Your task to perform on an android device: uninstall "DoorDash - Food Delivery" Image 0: 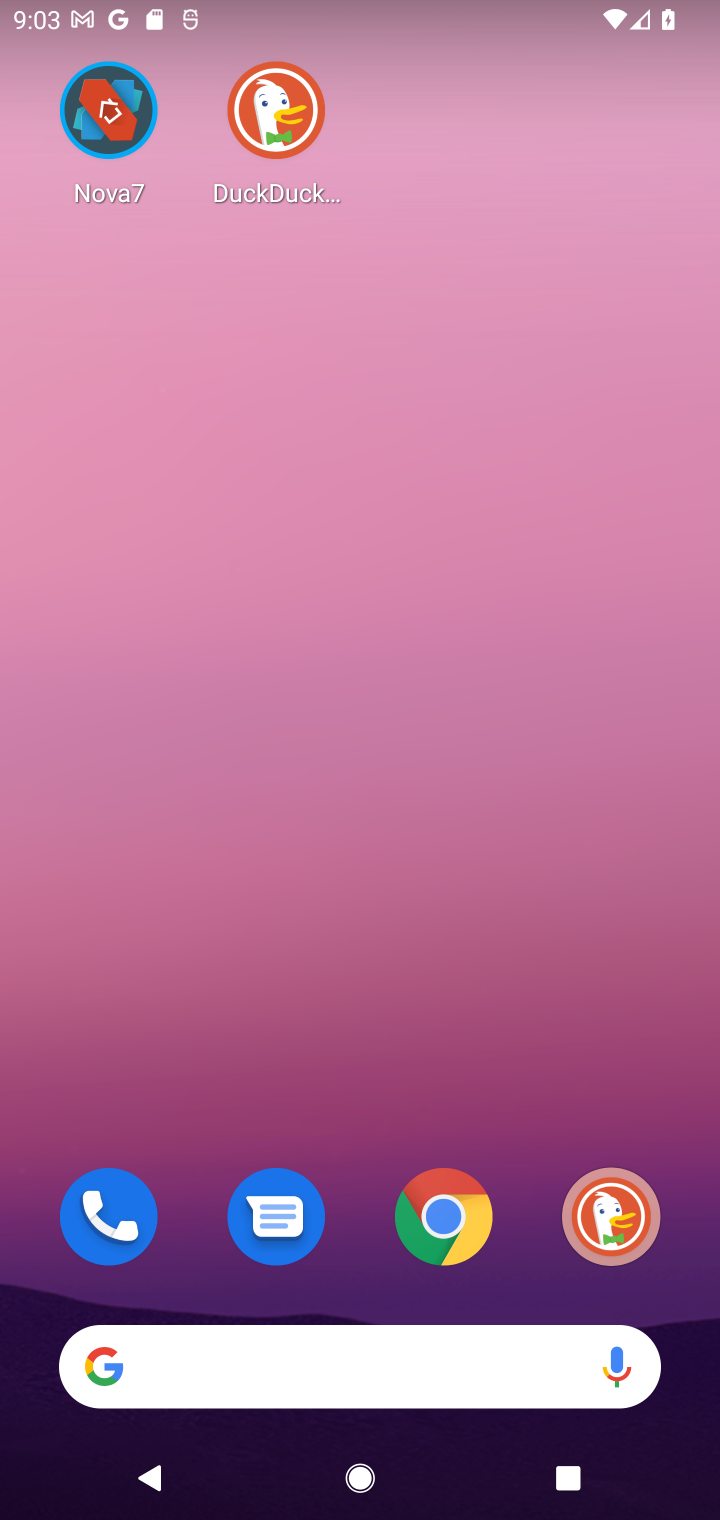
Step 0: press home button
Your task to perform on an android device: uninstall "DoorDash - Food Delivery" Image 1: 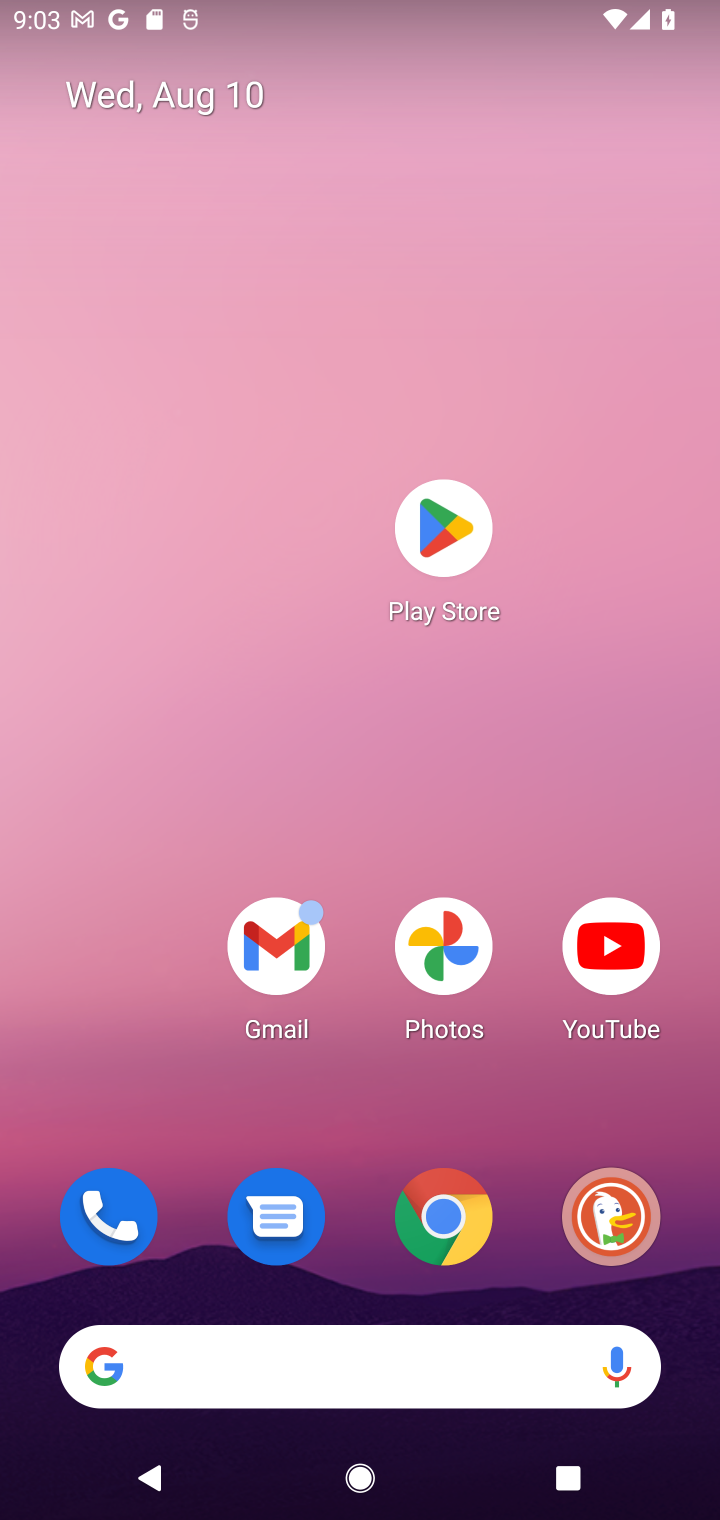
Step 1: click (444, 532)
Your task to perform on an android device: uninstall "DoorDash - Food Delivery" Image 2: 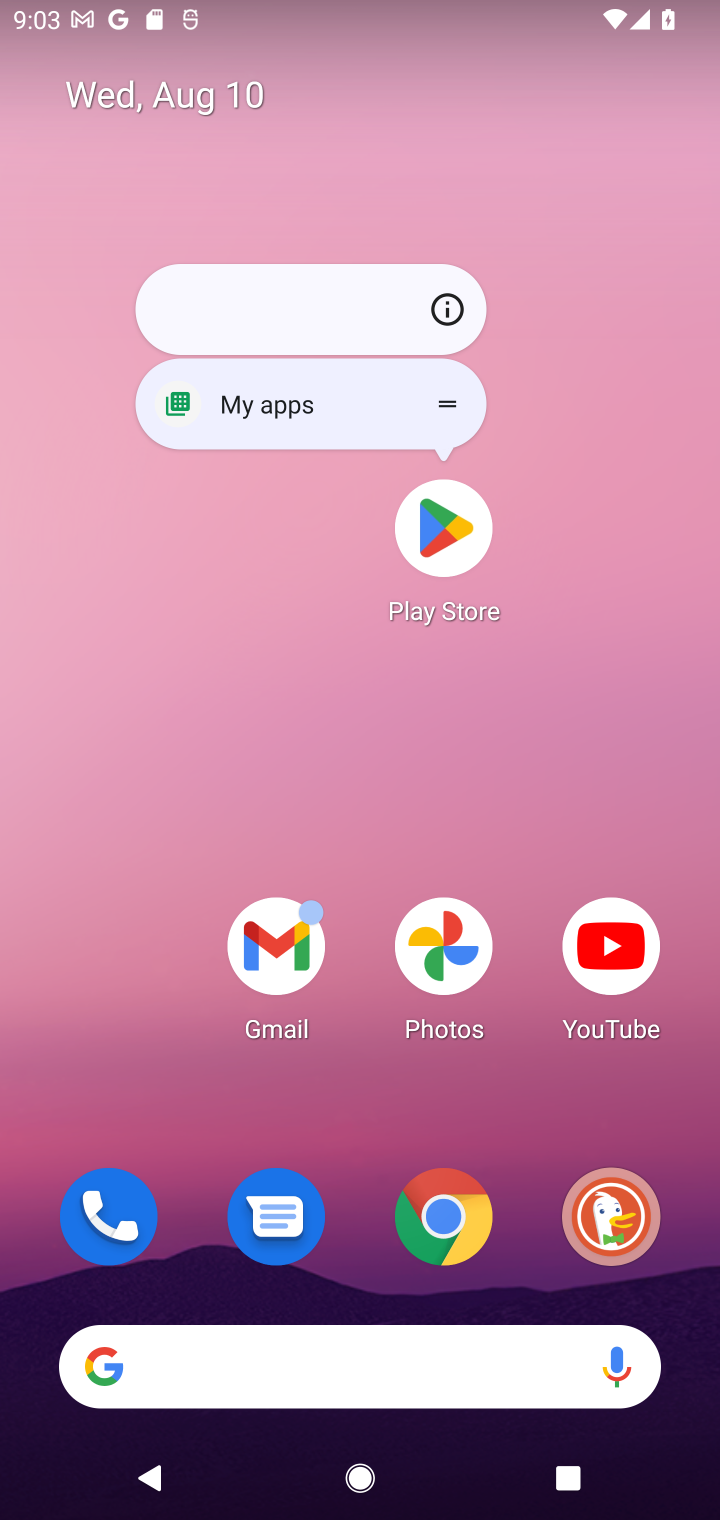
Step 2: click (444, 532)
Your task to perform on an android device: uninstall "DoorDash - Food Delivery" Image 3: 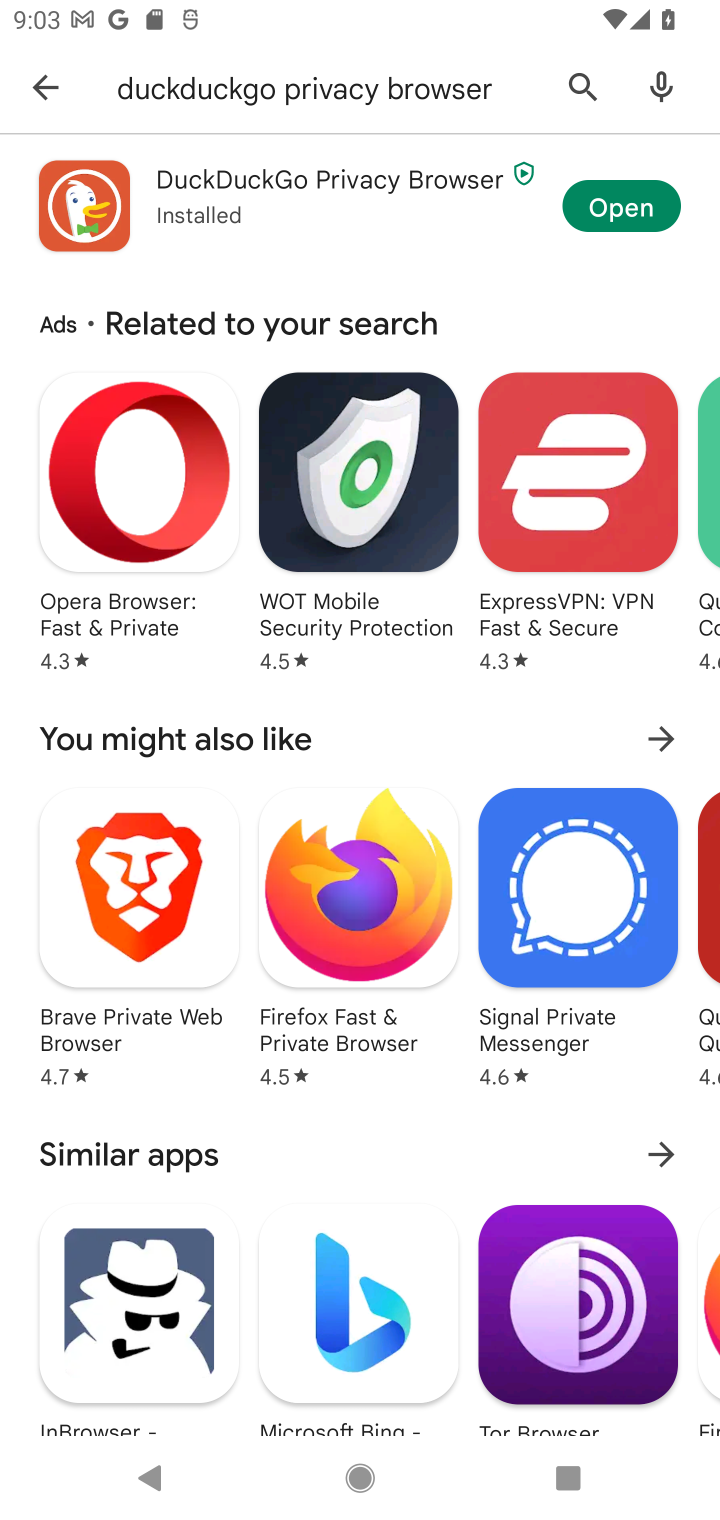
Step 3: click (562, 83)
Your task to perform on an android device: uninstall "DoorDash - Food Delivery" Image 4: 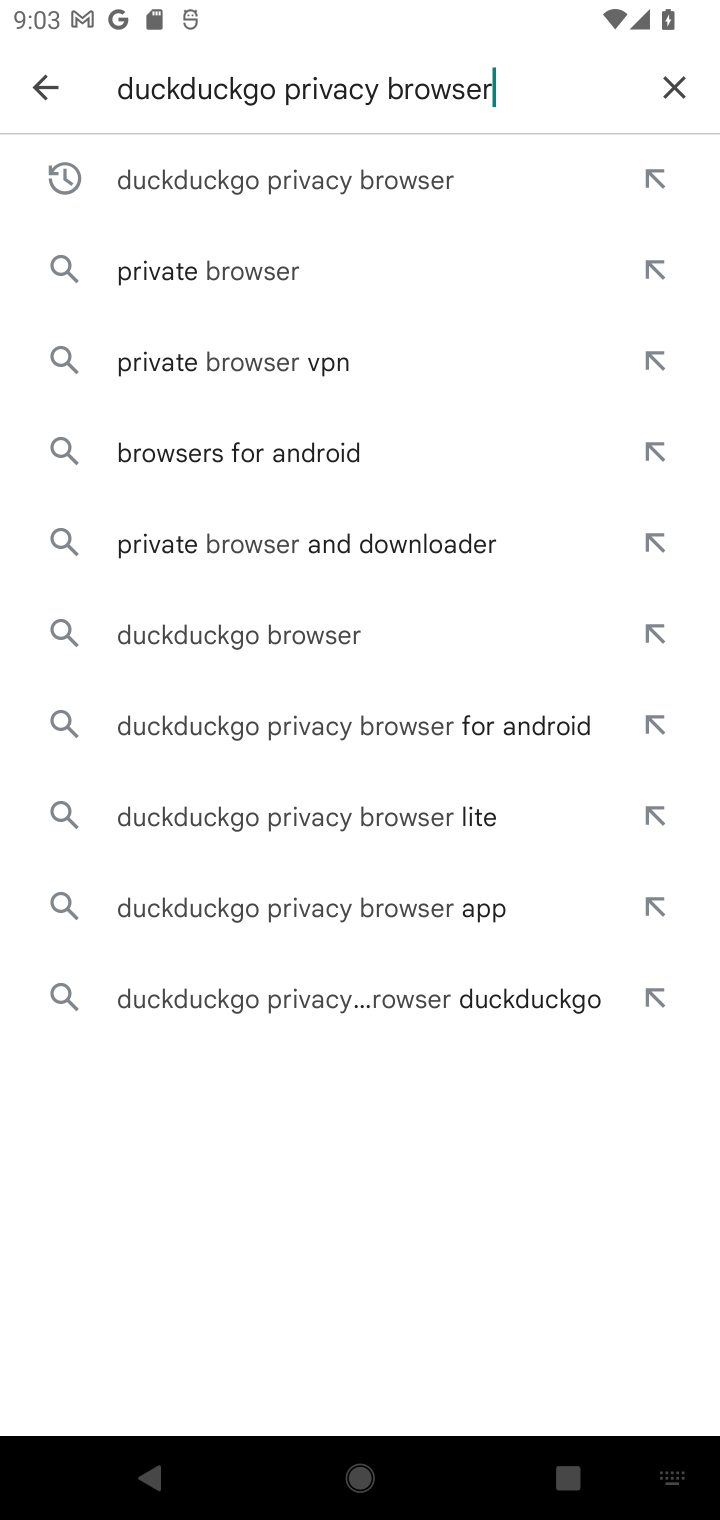
Step 4: click (681, 77)
Your task to perform on an android device: uninstall "DoorDash - Food Delivery" Image 5: 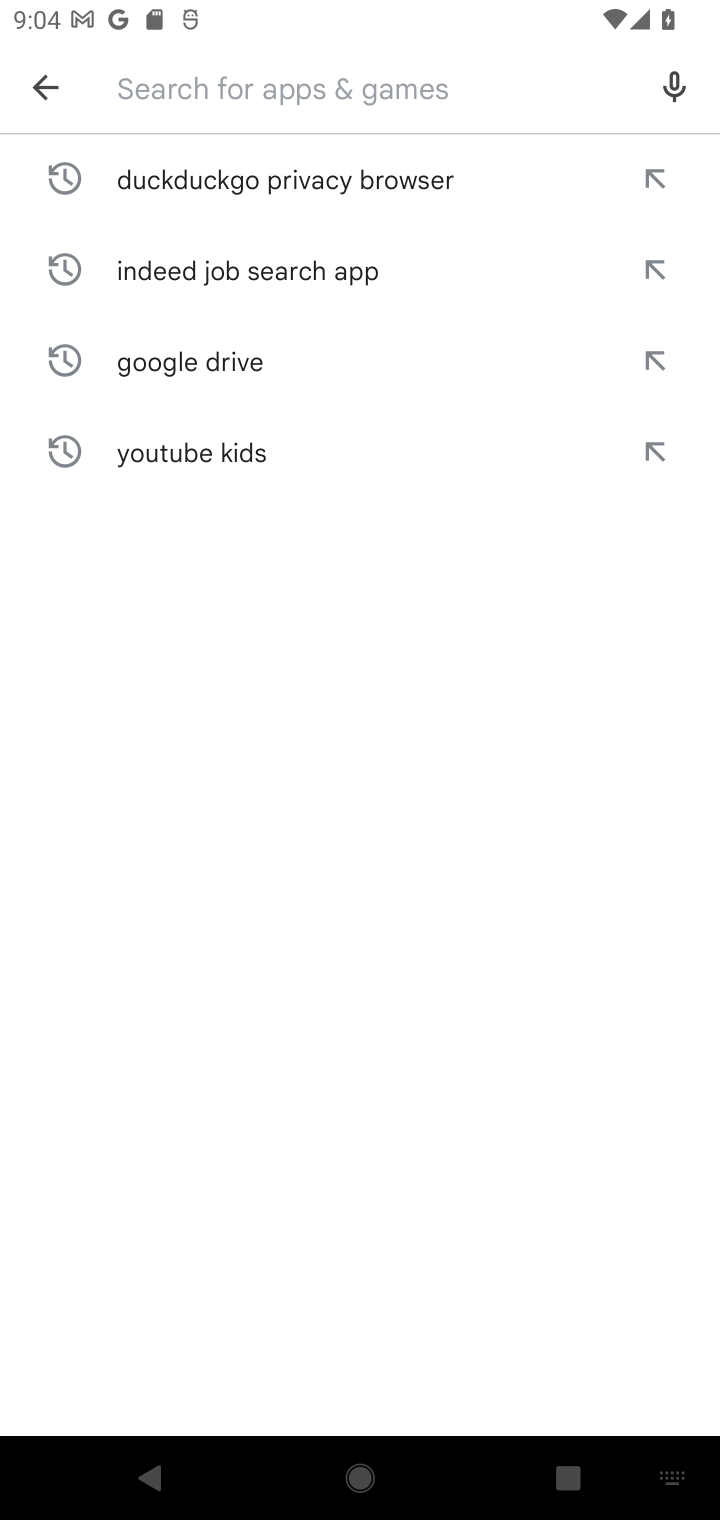
Step 5: type "DoorDash - Food Delivery"
Your task to perform on an android device: uninstall "DoorDash - Food Delivery" Image 6: 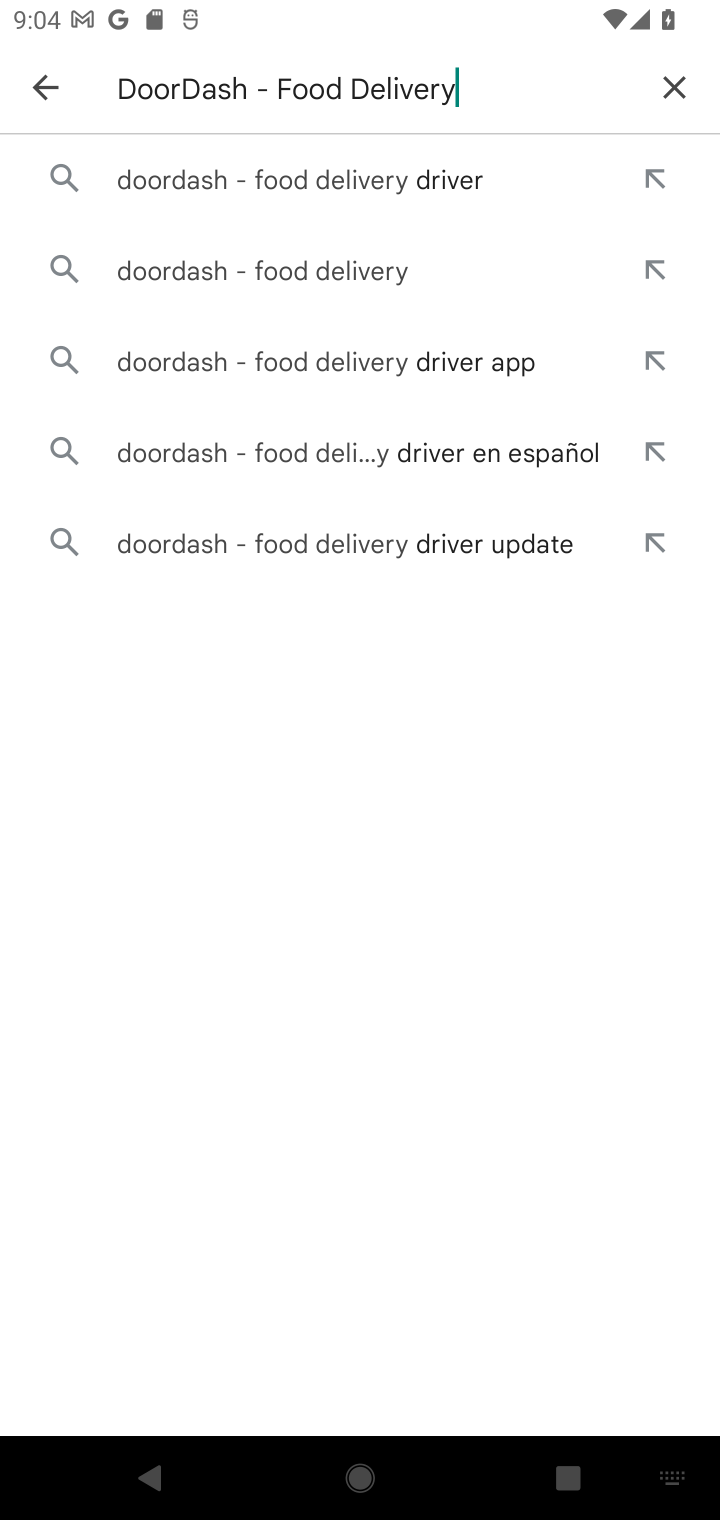
Step 6: click (265, 191)
Your task to perform on an android device: uninstall "DoorDash - Food Delivery" Image 7: 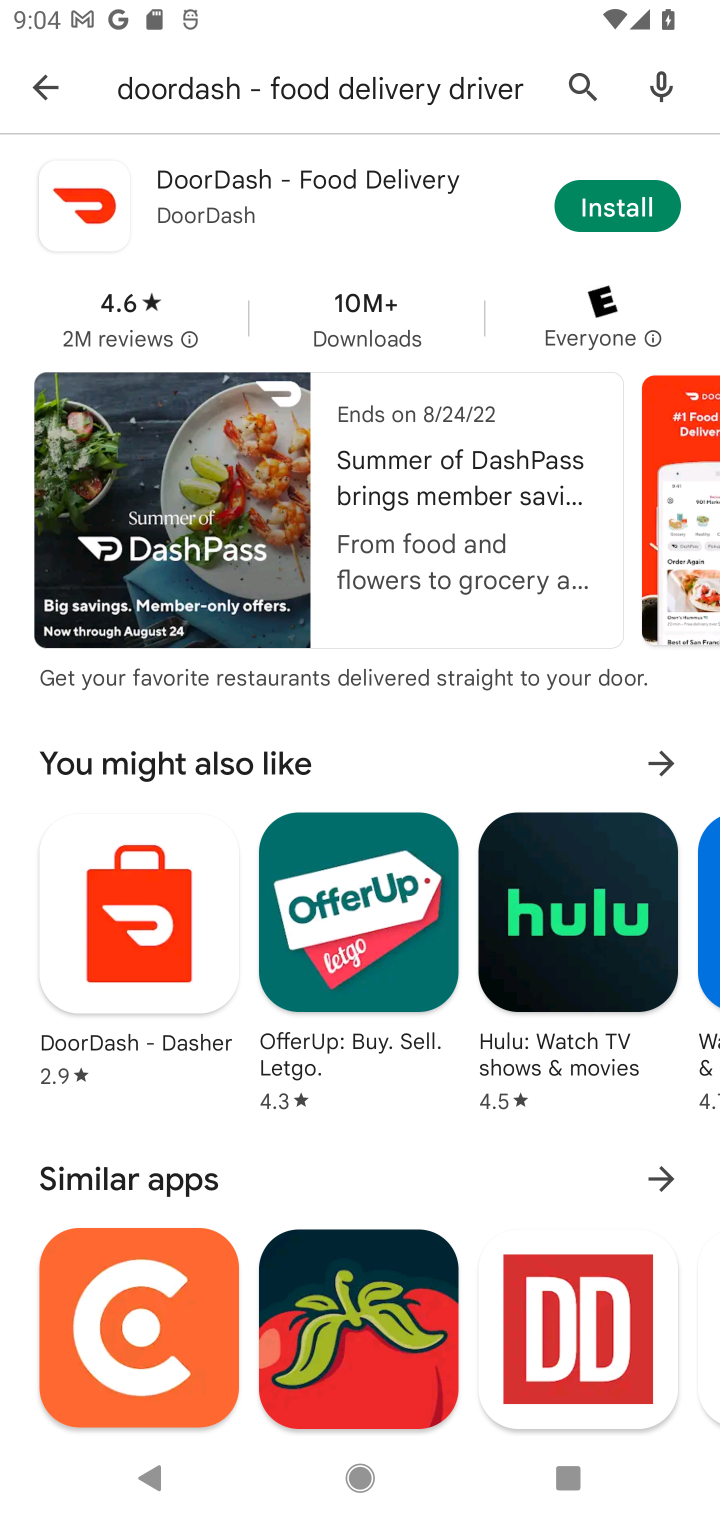
Step 7: task complete